Your task to perform on an android device: open app "Indeed Job Search" (install if not already installed), go to login, and select forgot password Image 0: 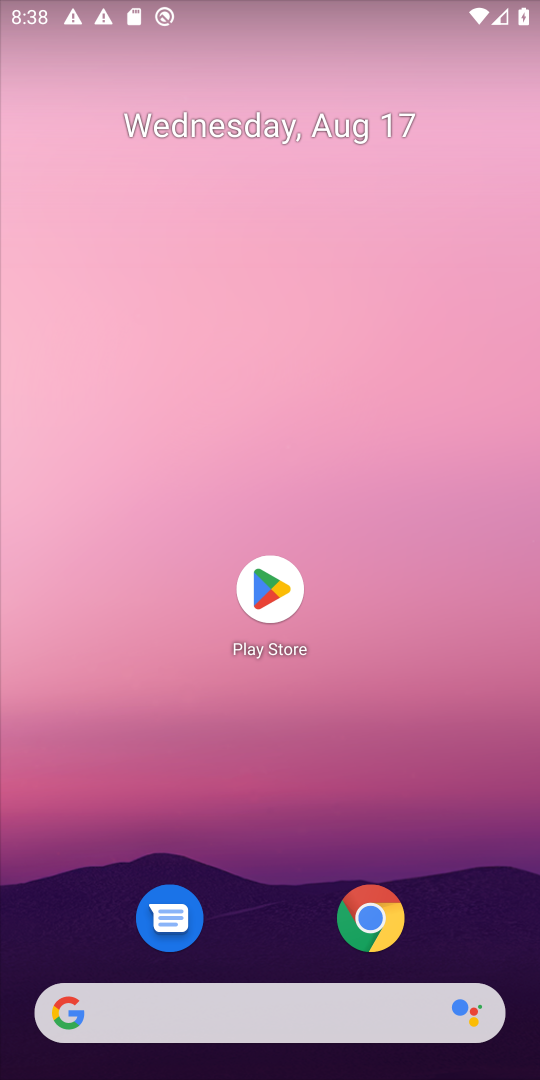
Step 0: click (273, 601)
Your task to perform on an android device: open app "Indeed Job Search" (install if not already installed), go to login, and select forgot password Image 1: 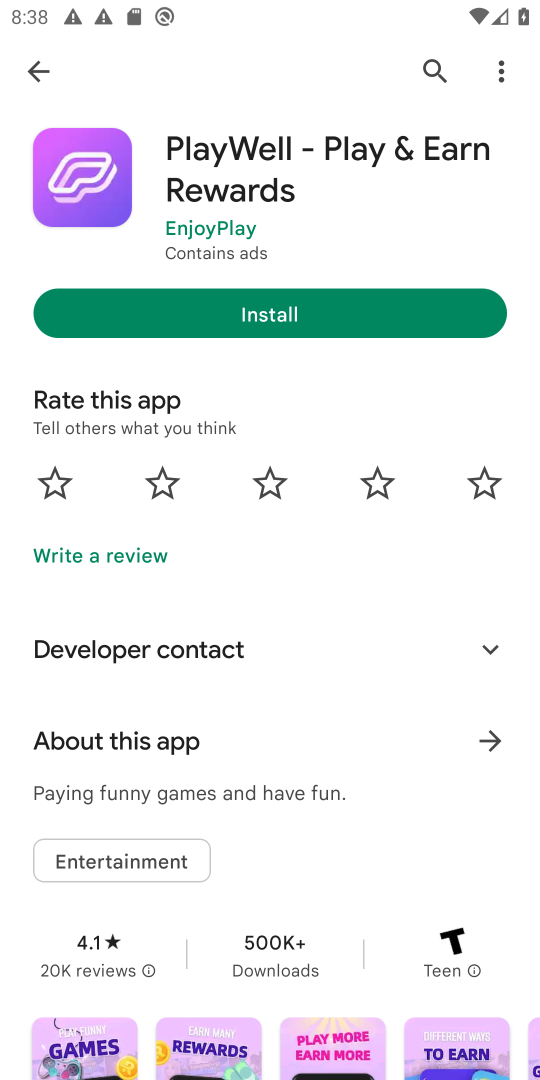
Step 1: click (434, 67)
Your task to perform on an android device: open app "Indeed Job Search" (install if not already installed), go to login, and select forgot password Image 2: 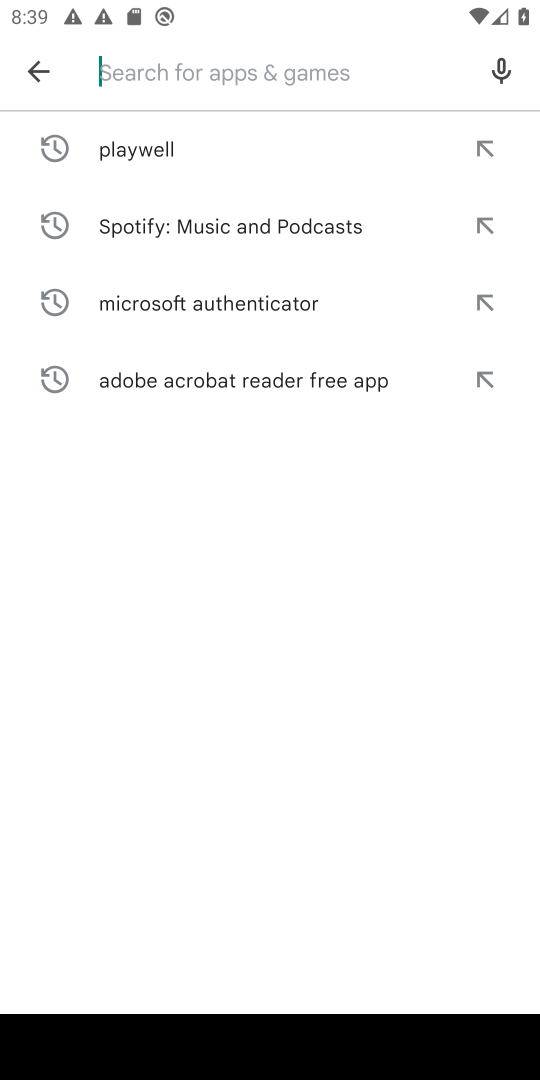
Step 2: type "Indeed Job Search"
Your task to perform on an android device: open app "Indeed Job Search" (install if not already installed), go to login, and select forgot password Image 3: 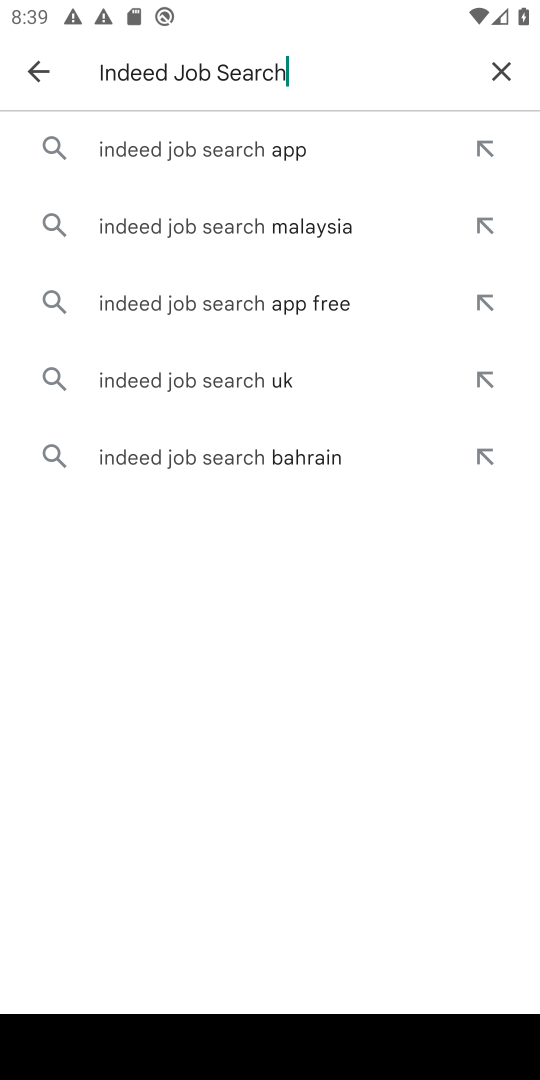
Step 3: click (214, 154)
Your task to perform on an android device: open app "Indeed Job Search" (install if not already installed), go to login, and select forgot password Image 4: 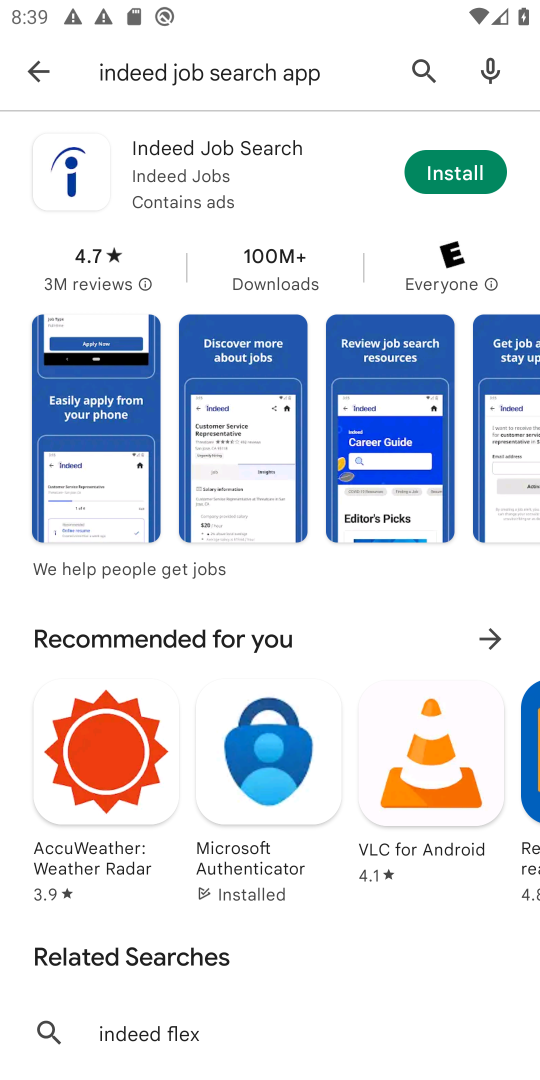
Step 4: click (472, 171)
Your task to perform on an android device: open app "Indeed Job Search" (install if not already installed), go to login, and select forgot password Image 5: 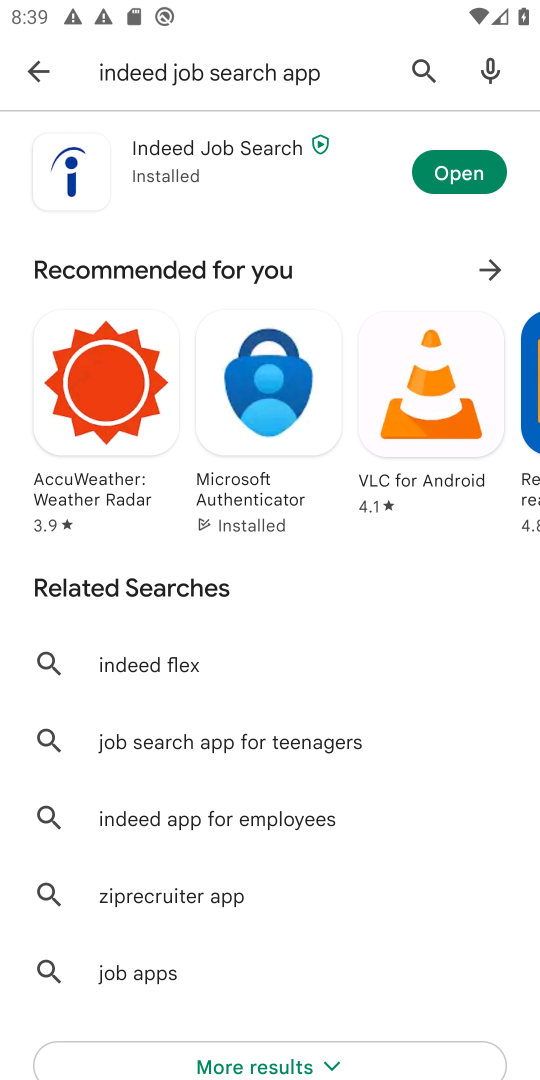
Step 5: click (470, 168)
Your task to perform on an android device: open app "Indeed Job Search" (install if not already installed), go to login, and select forgot password Image 6: 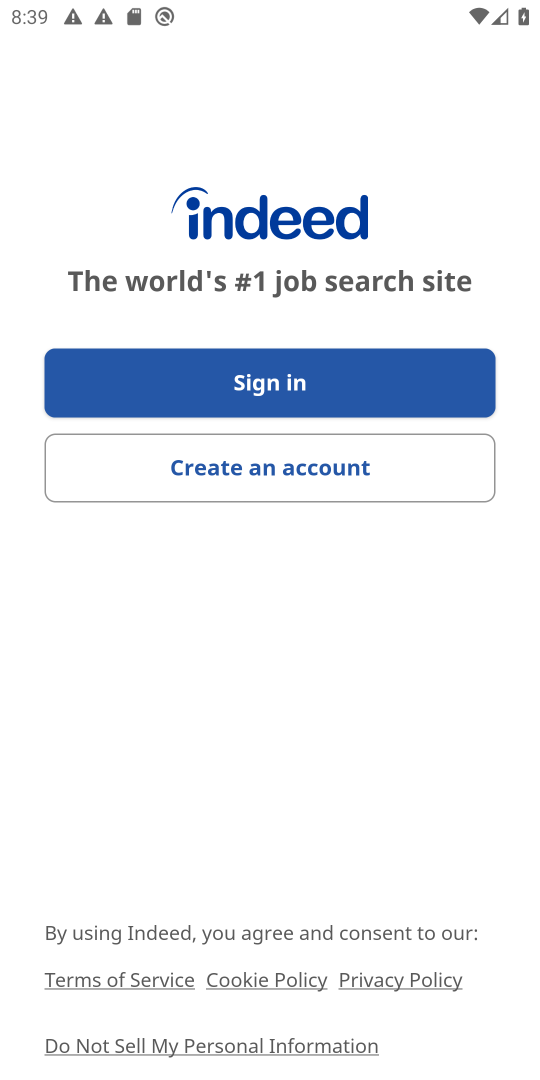
Step 6: click (317, 378)
Your task to perform on an android device: open app "Indeed Job Search" (install if not already installed), go to login, and select forgot password Image 7: 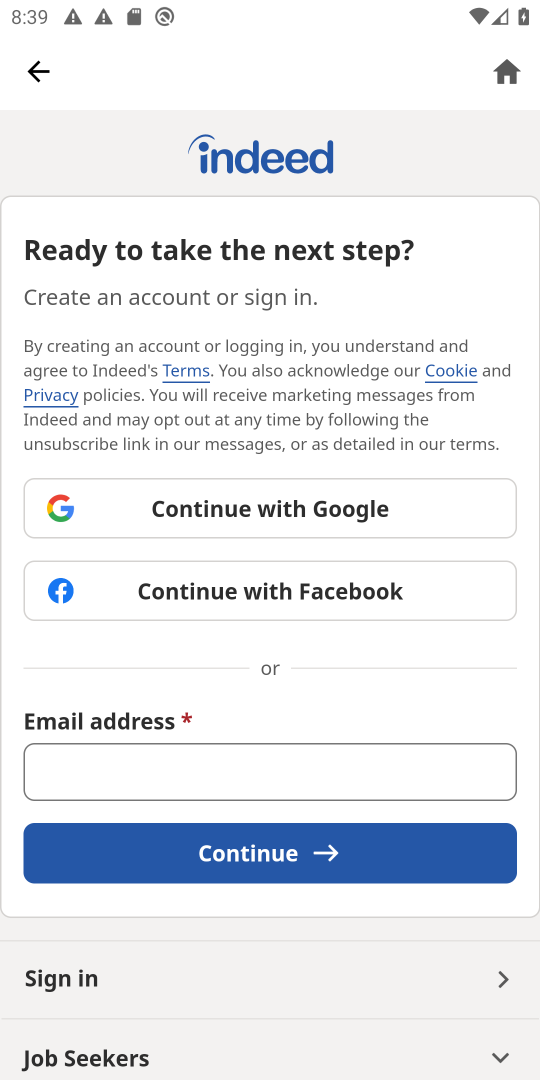
Step 7: click (498, 979)
Your task to perform on an android device: open app "Indeed Job Search" (install if not already installed), go to login, and select forgot password Image 8: 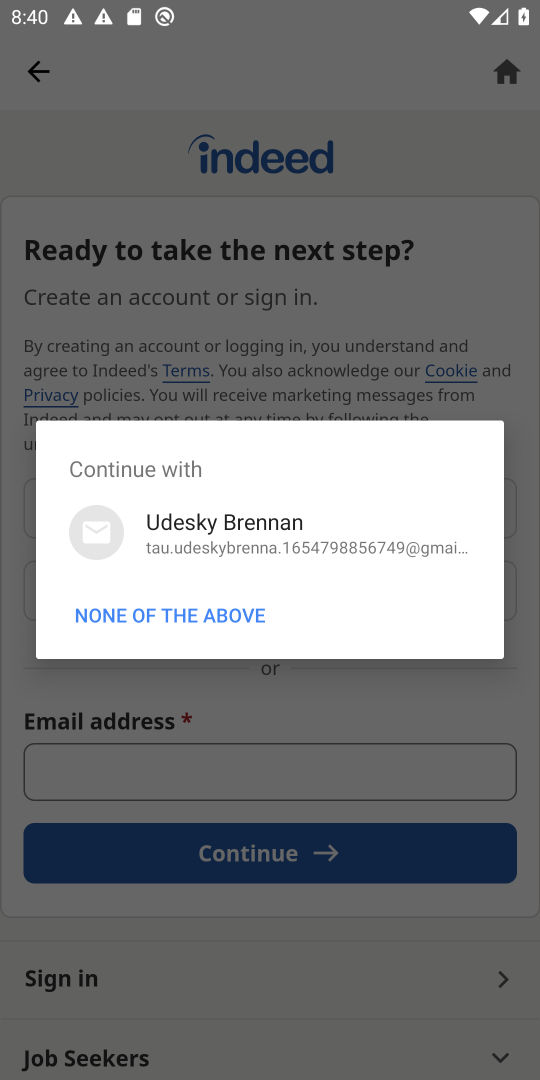
Step 8: click (432, 708)
Your task to perform on an android device: open app "Indeed Job Search" (install if not already installed), go to login, and select forgot password Image 9: 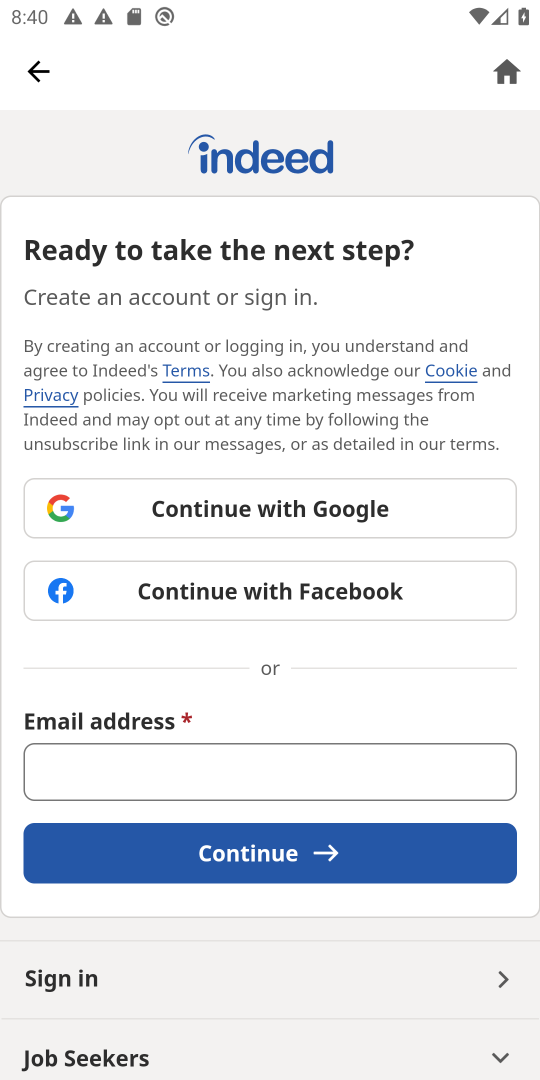
Step 9: task complete